Your task to perform on an android device: turn on bluetooth scan Image 0: 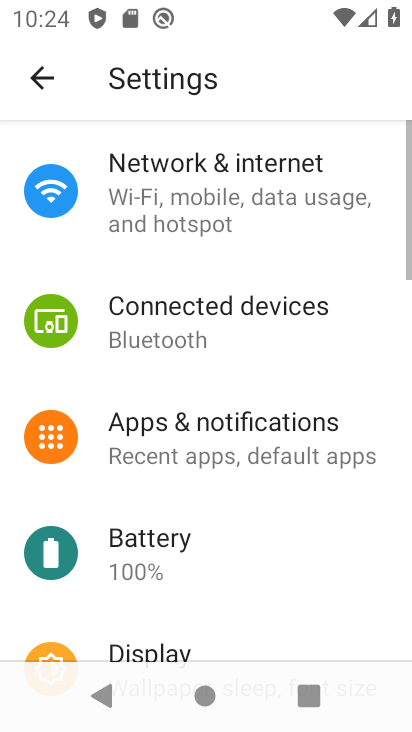
Step 0: click (244, 322)
Your task to perform on an android device: turn on bluetooth scan Image 1: 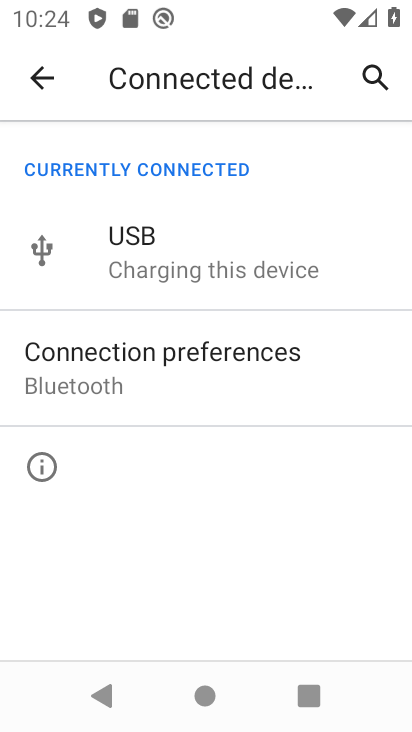
Step 1: click (235, 368)
Your task to perform on an android device: turn on bluetooth scan Image 2: 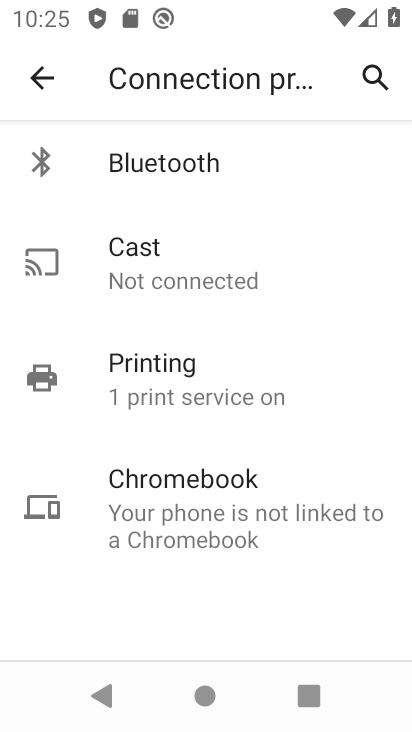
Step 2: click (257, 179)
Your task to perform on an android device: turn on bluetooth scan Image 3: 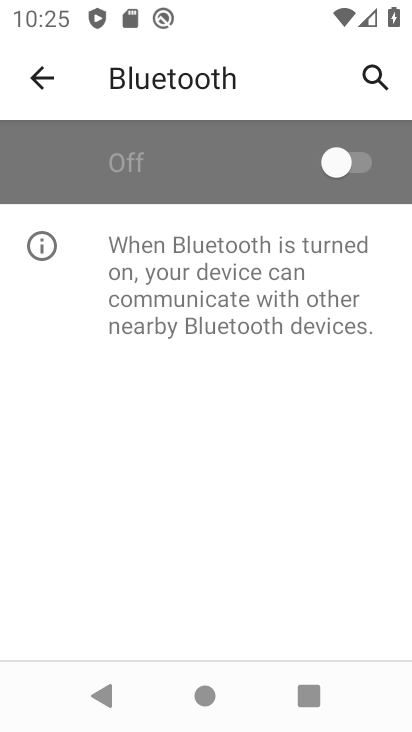
Step 3: click (370, 166)
Your task to perform on an android device: turn on bluetooth scan Image 4: 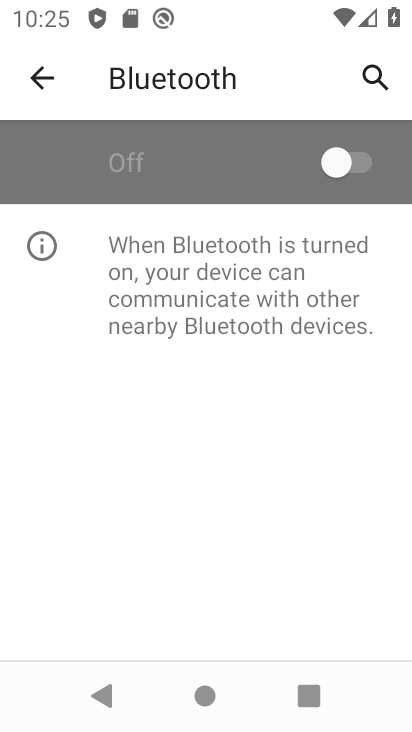
Step 4: task complete